Your task to perform on an android device: Search for pizza restaurants on Maps Image 0: 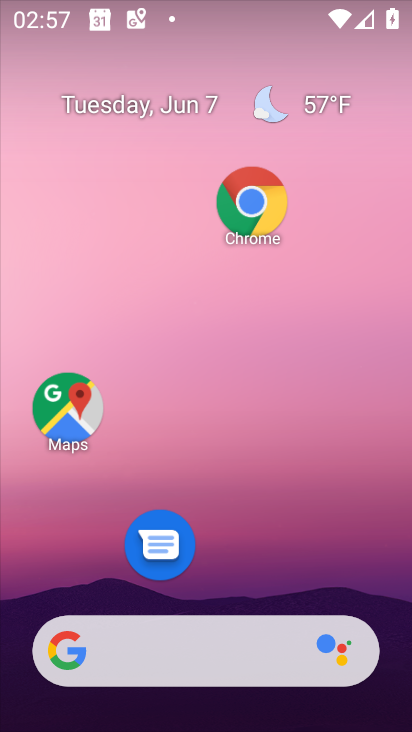
Step 0: click (74, 411)
Your task to perform on an android device: Search for pizza restaurants on Maps Image 1: 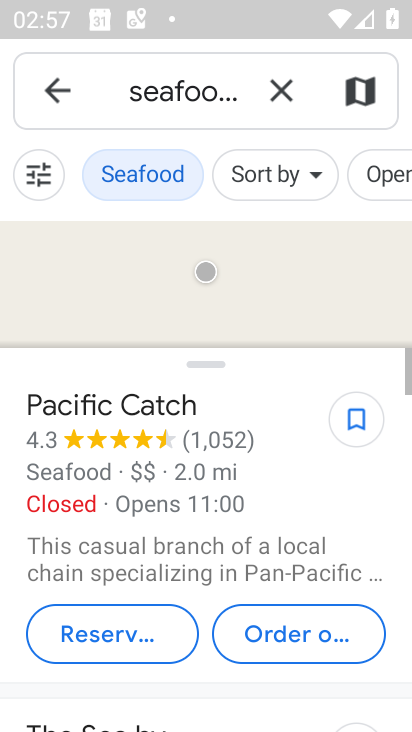
Step 1: click (287, 77)
Your task to perform on an android device: Search for pizza restaurants on Maps Image 2: 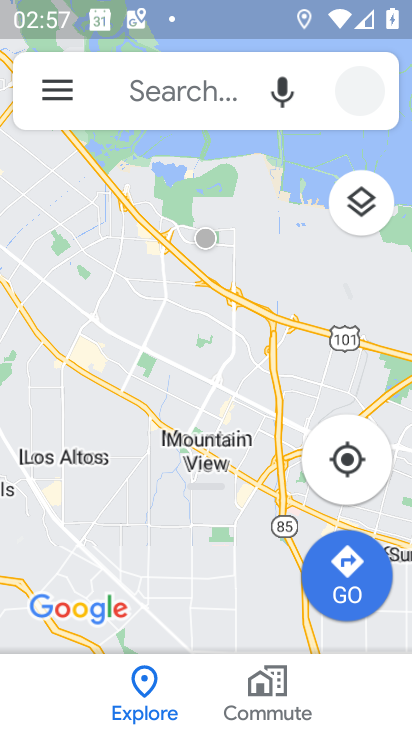
Step 2: click (199, 78)
Your task to perform on an android device: Search for pizza restaurants on Maps Image 3: 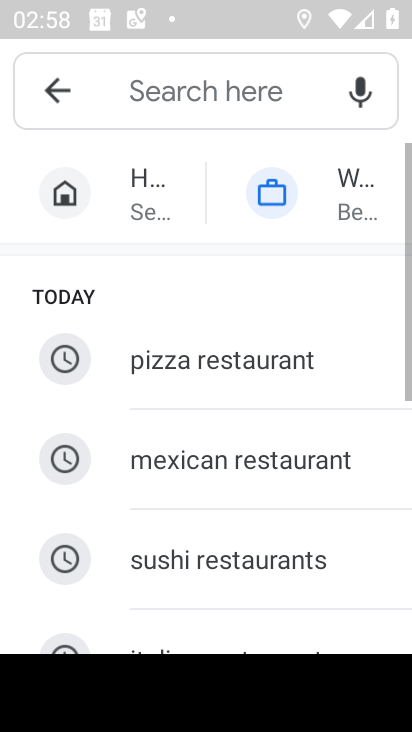
Step 3: click (198, 343)
Your task to perform on an android device: Search for pizza restaurants on Maps Image 4: 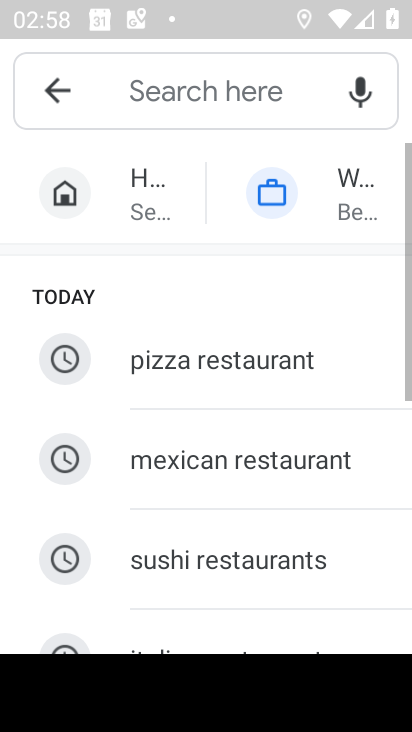
Step 4: click (197, 351)
Your task to perform on an android device: Search for pizza restaurants on Maps Image 5: 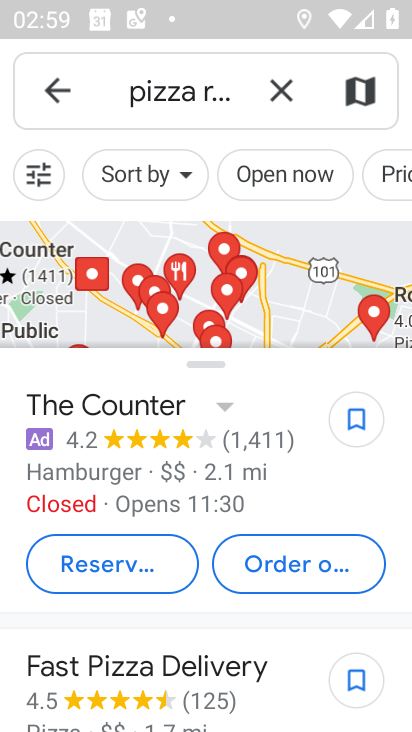
Step 5: task complete